Your task to perform on an android device: change the clock style Image 0: 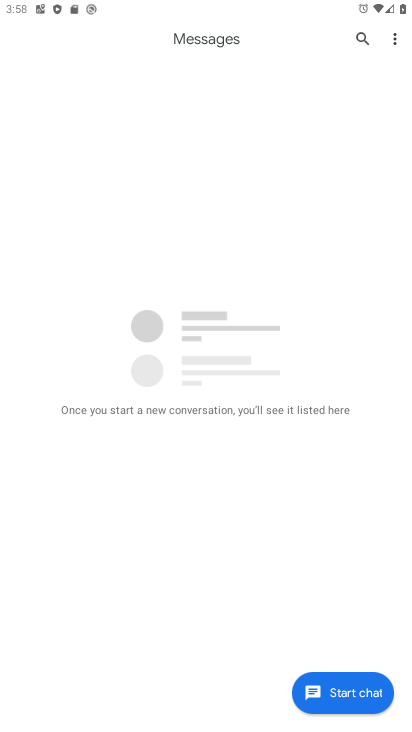
Step 0: press home button
Your task to perform on an android device: change the clock style Image 1: 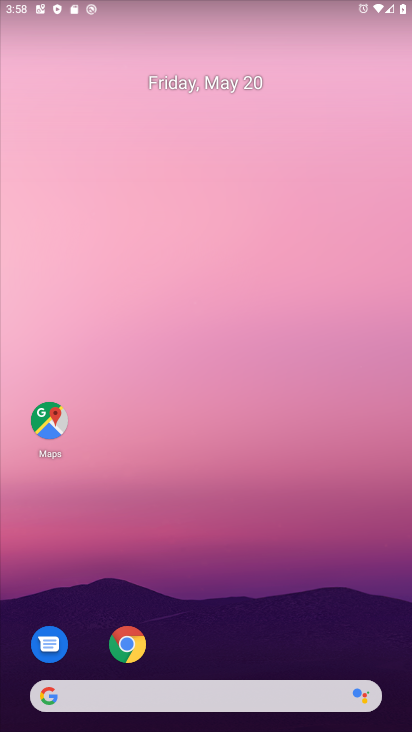
Step 1: drag from (322, 624) to (195, 2)
Your task to perform on an android device: change the clock style Image 2: 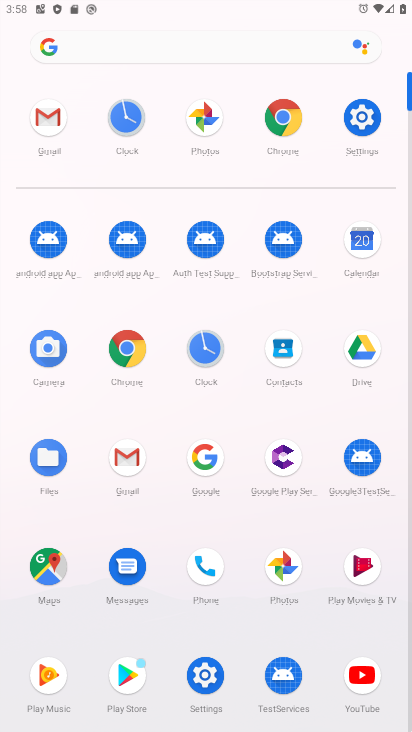
Step 2: click (121, 130)
Your task to perform on an android device: change the clock style Image 3: 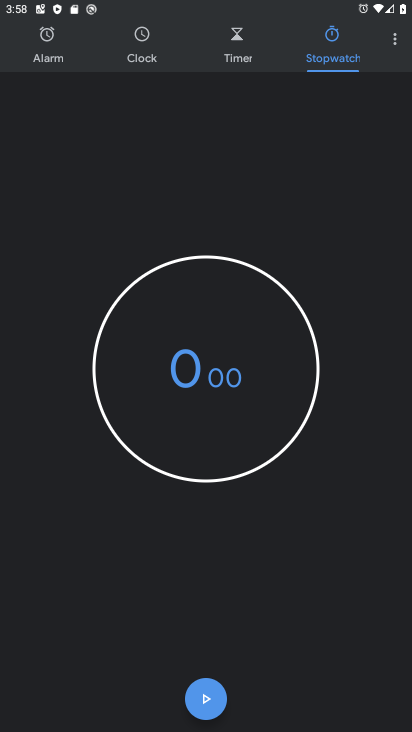
Step 3: click (403, 49)
Your task to perform on an android device: change the clock style Image 4: 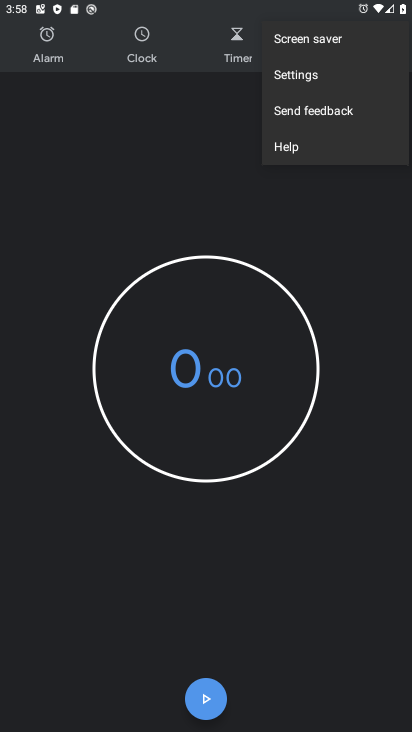
Step 4: click (309, 74)
Your task to perform on an android device: change the clock style Image 5: 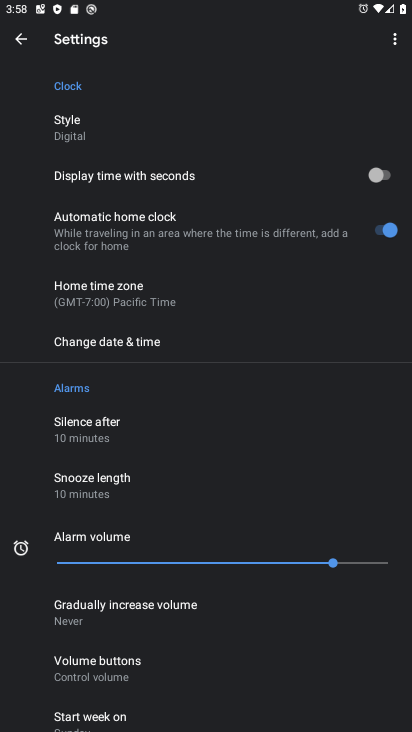
Step 5: click (173, 148)
Your task to perform on an android device: change the clock style Image 6: 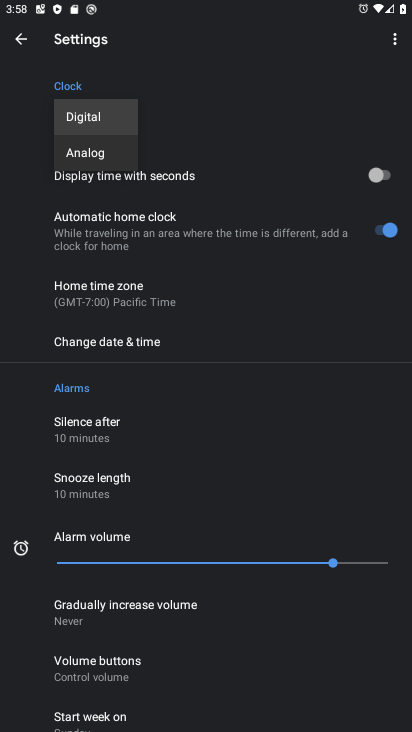
Step 6: click (126, 150)
Your task to perform on an android device: change the clock style Image 7: 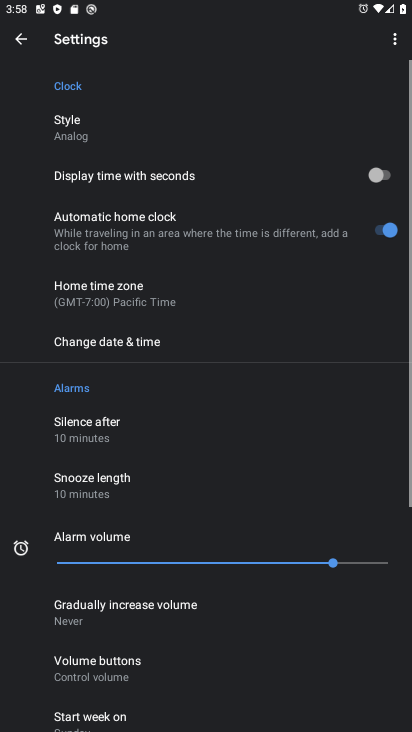
Step 7: task complete